Your task to perform on an android device: turn off location Image 0: 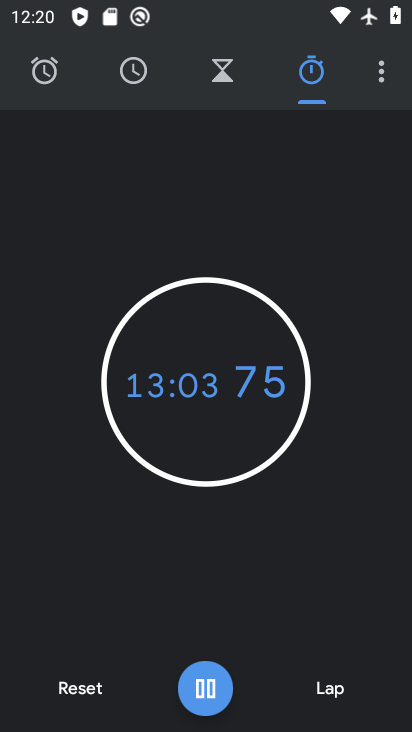
Step 0: press home button
Your task to perform on an android device: turn off location Image 1: 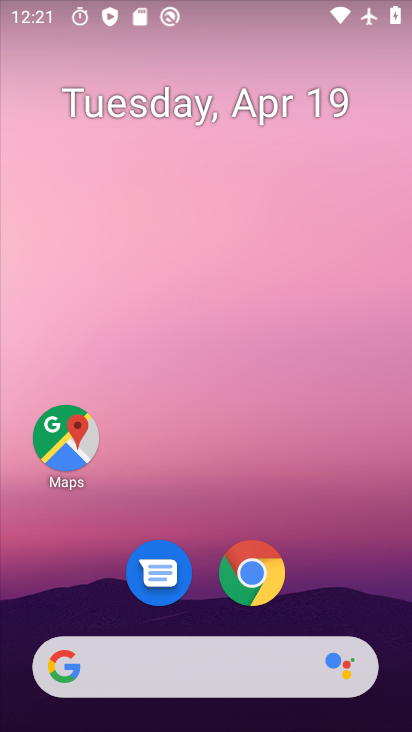
Step 1: drag from (301, 571) to (260, 184)
Your task to perform on an android device: turn off location Image 2: 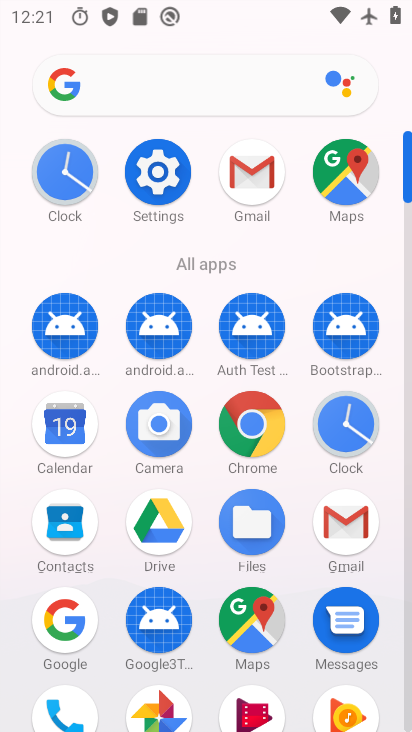
Step 2: click (147, 170)
Your task to perform on an android device: turn off location Image 3: 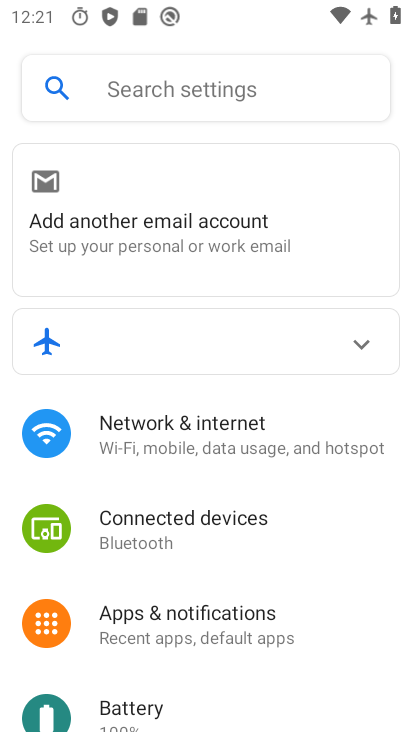
Step 3: drag from (203, 645) to (209, 310)
Your task to perform on an android device: turn off location Image 4: 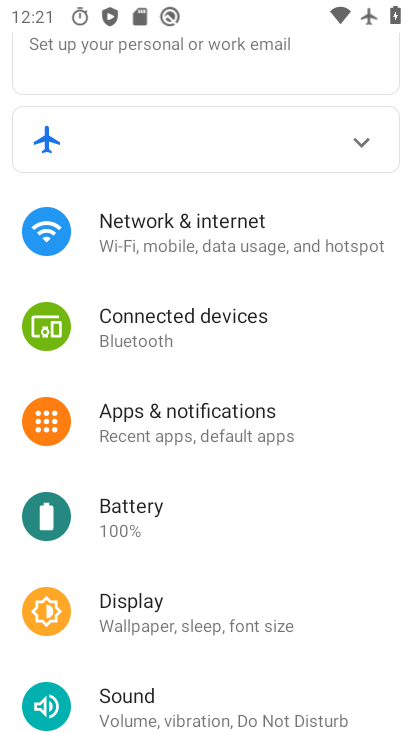
Step 4: drag from (207, 675) to (217, 329)
Your task to perform on an android device: turn off location Image 5: 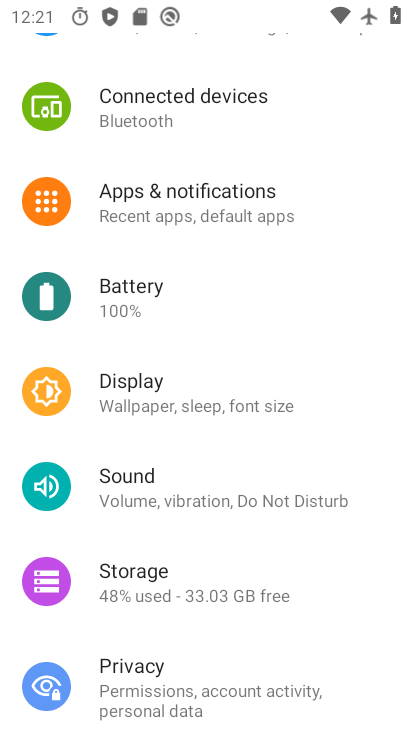
Step 5: drag from (210, 577) to (224, 311)
Your task to perform on an android device: turn off location Image 6: 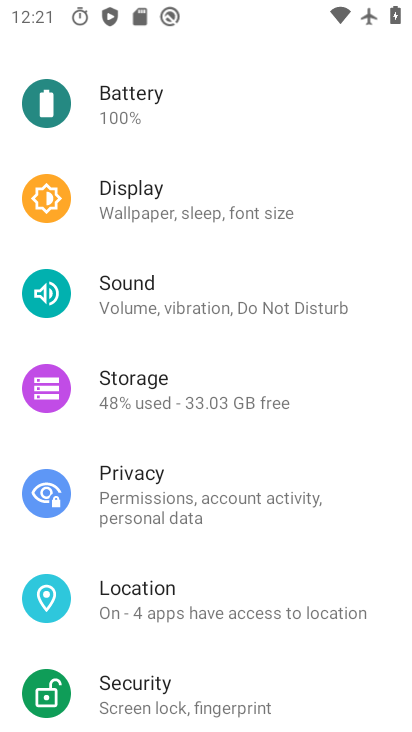
Step 6: click (165, 593)
Your task to perform on an android device: turn off location Image 7: 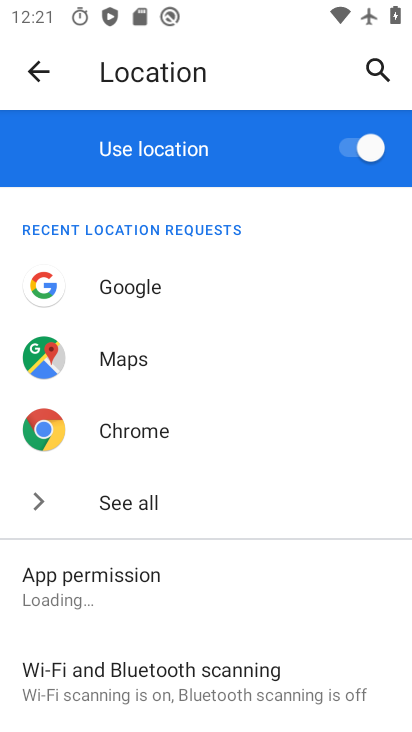
Step 7: click (362, 147)
Your task to perform on an android device: turn off location Image 8: 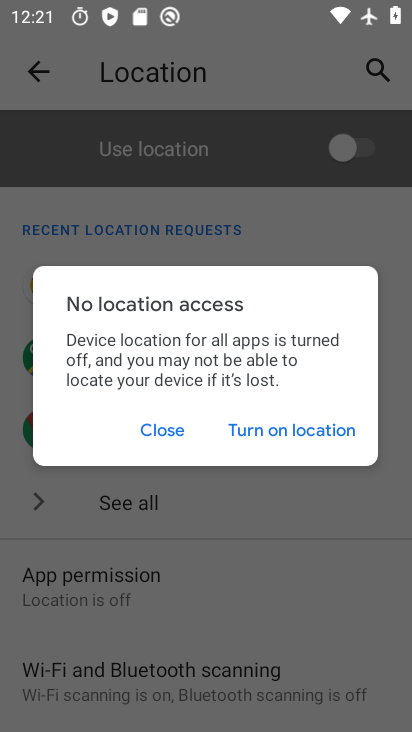
Step 8: task complete